Your task to perform on an android device: change the clock style Image 0: 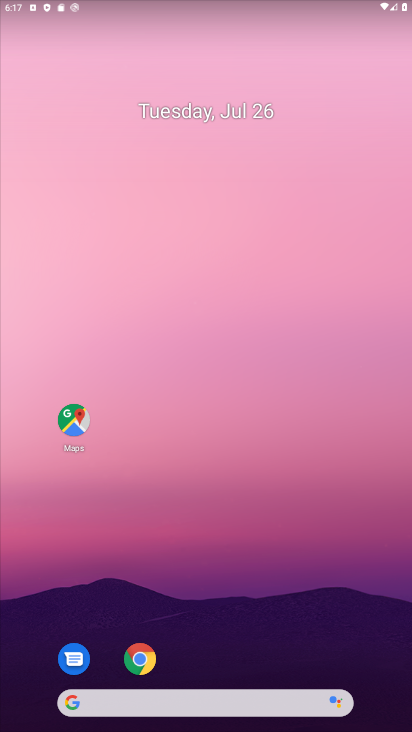
Step 0: drag from (326, 642) to (333, 223)
Your task to perform on an android device: change the clock style Image 1: 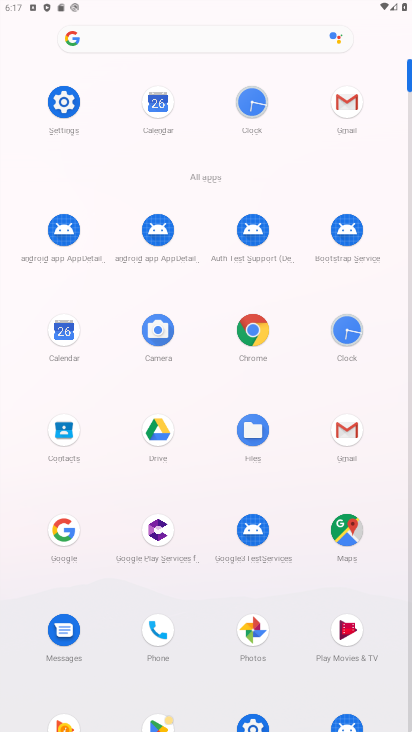
Step 1: click (239, 100)
Your task to perform on an android device: change the clock style Image 2: 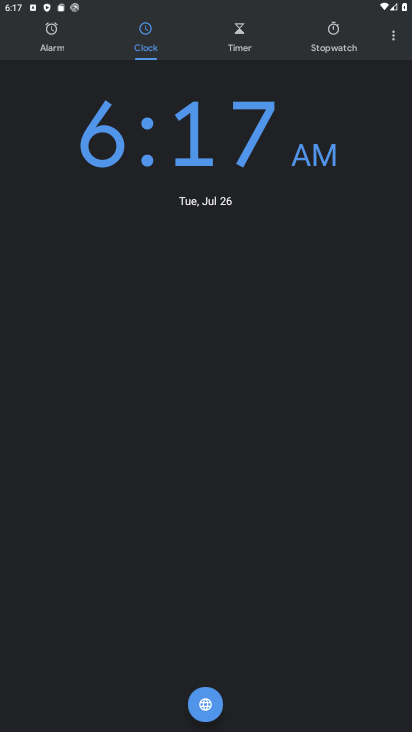
Step 2: task complete